Your task to perform on an android device: Search for "razer naga" on newegg.com, select the first entry, add it to the cart, then select checkout. Image 0: 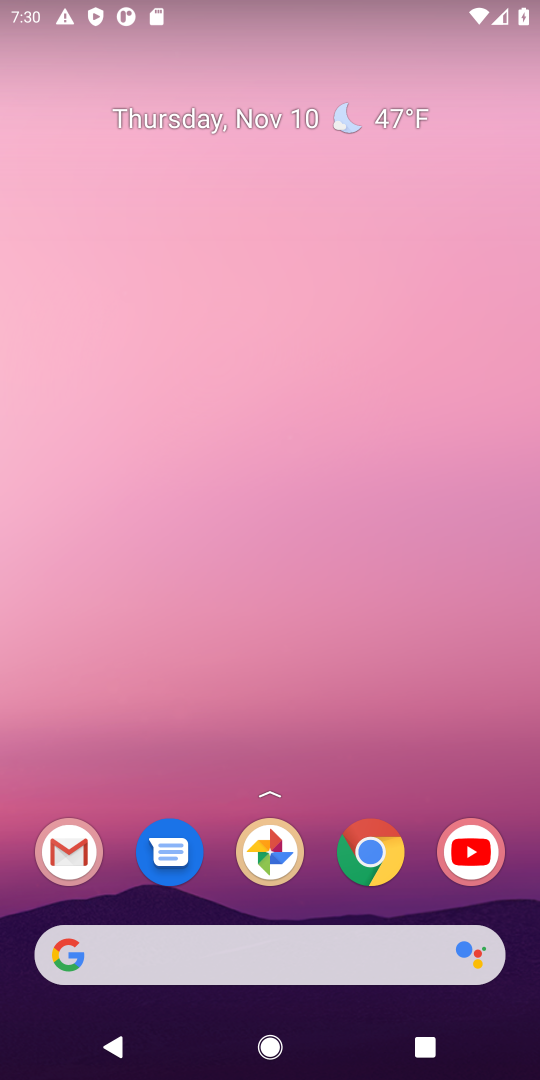
Step 0: click (378, 860)
Your task to perform on an android device: Search for "razer naga" on newegg.com, select the first entry, add it to the cart, then select checkout. Image 1: 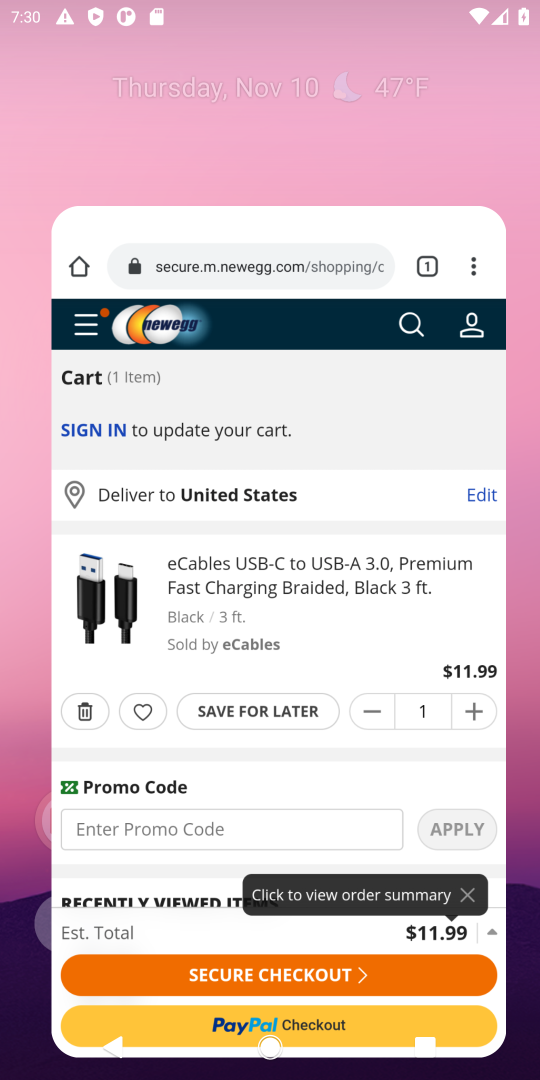
Step 1: click (378, 860)
Your task to perform on an android device: Search for "razer naga" on newegg.com, select the first entry, add it to the cart, then select checkout. Image 2: 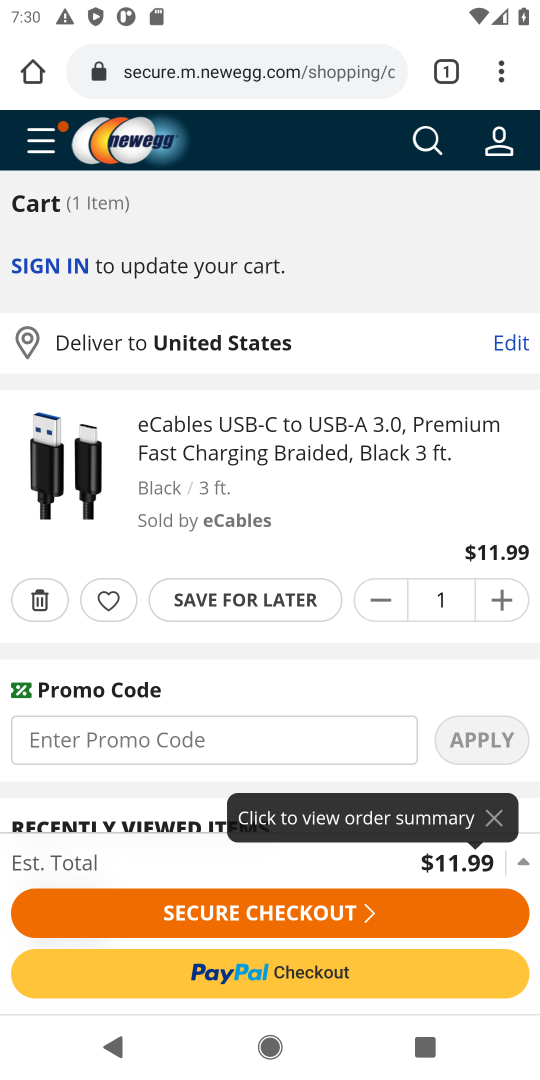
Step 2: click (423, 138)
Your task to perform on an android device: Search for "razer naga" on newegg.com, select the first entry, add it to the cart, then select checkout. Image 3: 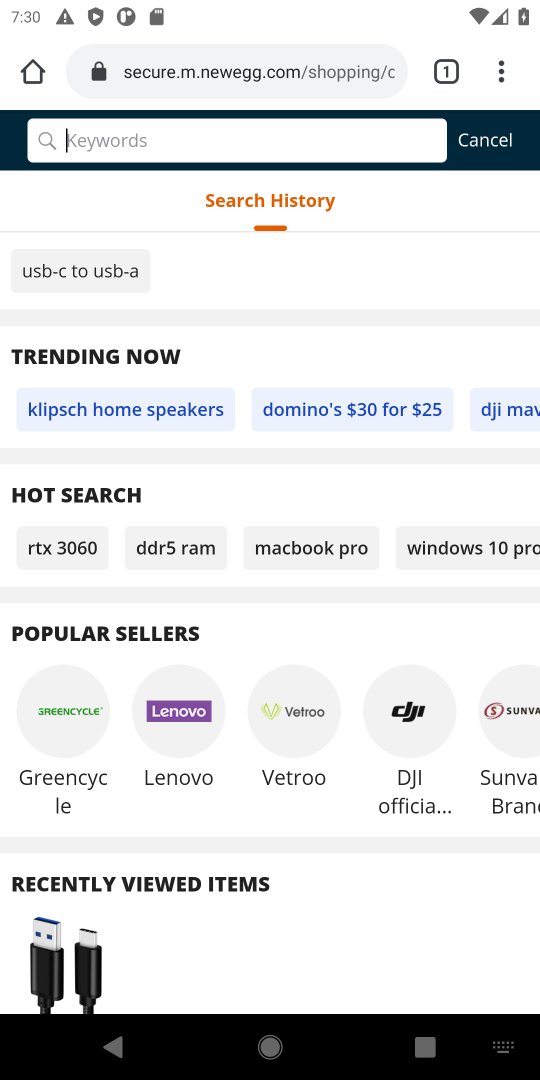
Step 3: click (158, 134)
Your task to perform on an android device: Search for "razer naga" on newegg.com, select the first entry, add it to the cart, then select checkout. Image 4: 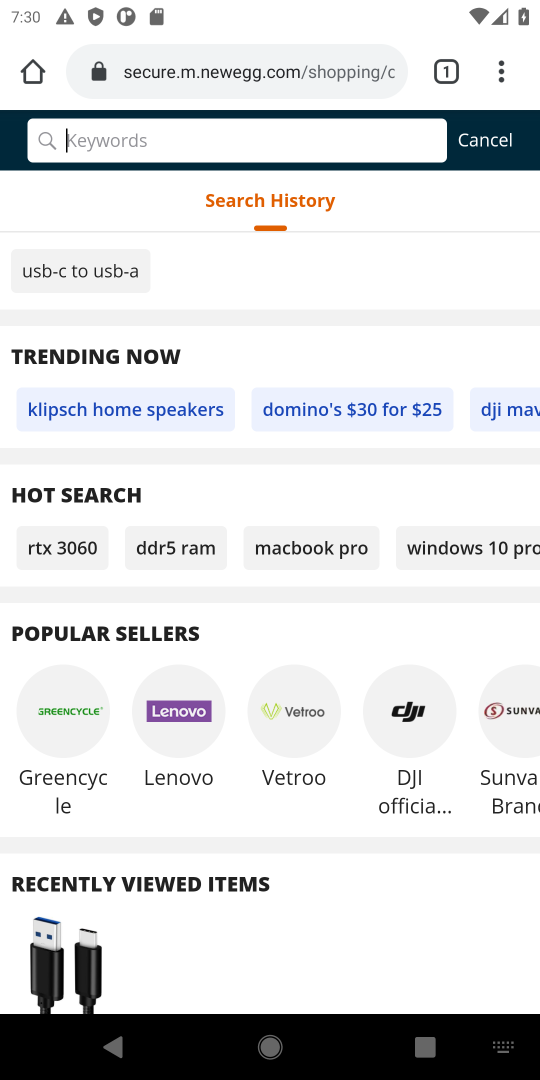
Step 4: type "razer naga"
Your task to perform on an android device: Search for "razer naga" on newegg.com, select the first entry, add it to the cart, then select checkout. Image 5: 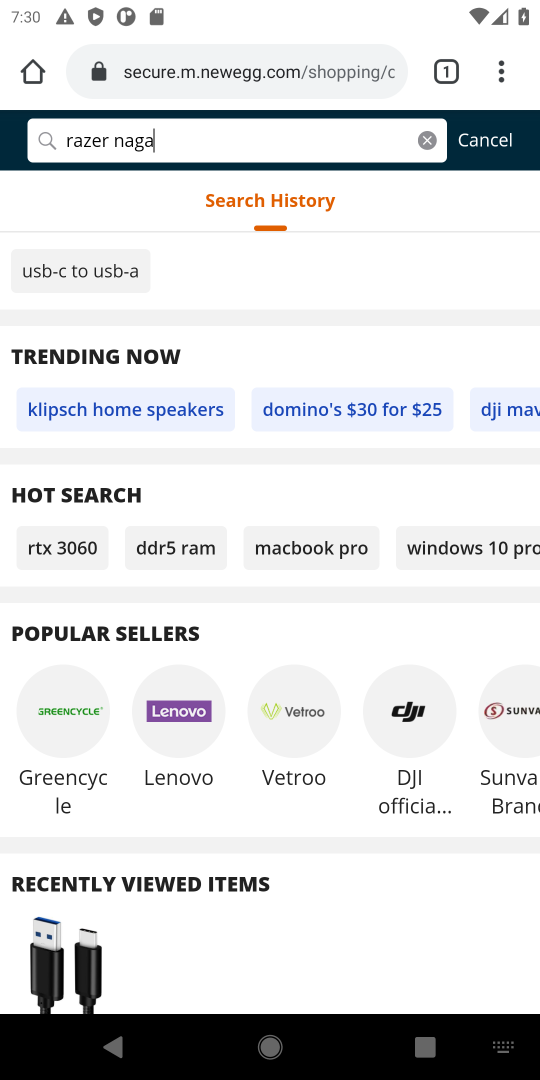
Step 5: press enter
Your task to perform on an android device: Search for "razer naga" on newegg.com, select the first entry, add it to the cart, then select checkout. Image 6: 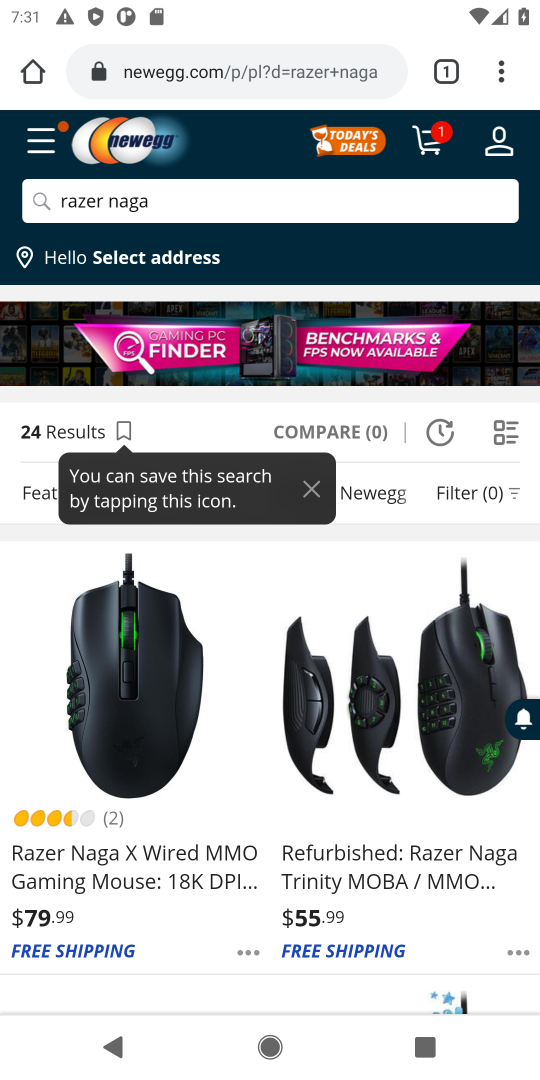
Step 6: click (90, 872)
Your task to perform on an android device: Search for "razer naga" on newegg.com, select the first entry, add it to the cart, then select checkout. Image 7: 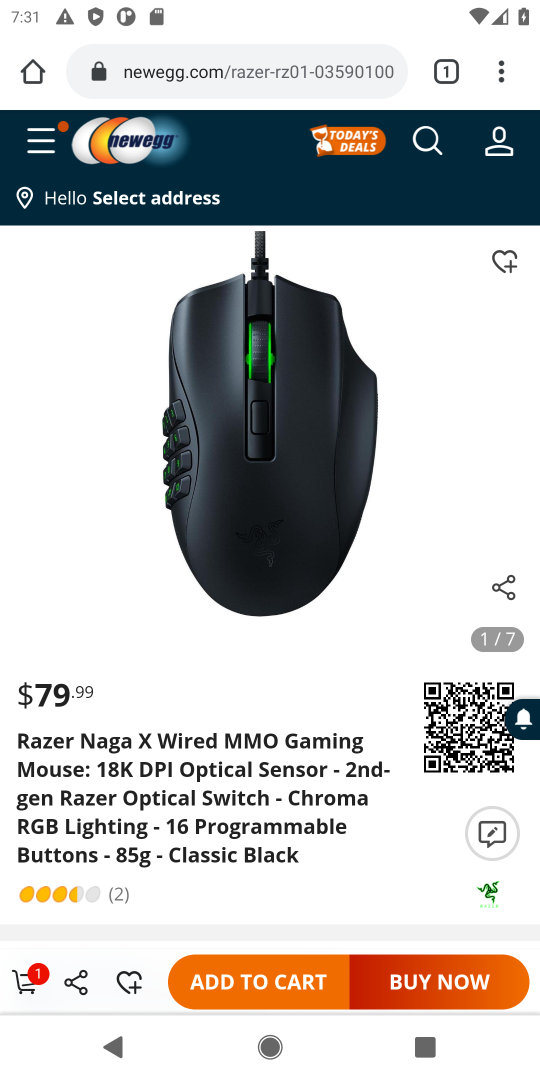
Step 7: click (273, 975)
Your task to perform on an android device: Search for "razer naga" on newegg.com, select the first entry, add it to the cart, then select checkout. Image 8: 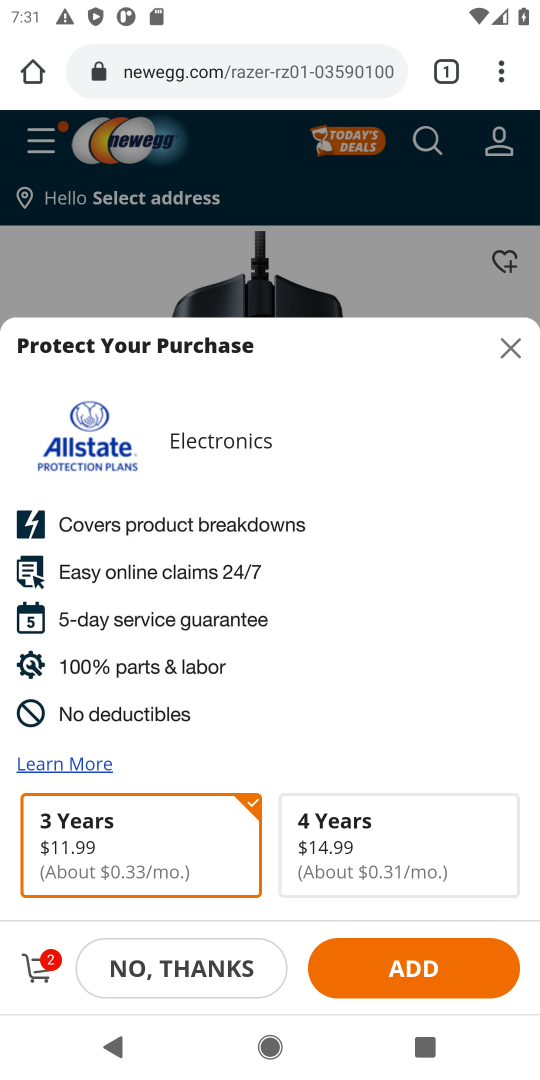
Step 8: click (40, 977)
Your task to perform on an android device: Search for "razer naga" on newegg.com, select the first entry, add it to the cart, then select checkout. Image 9: 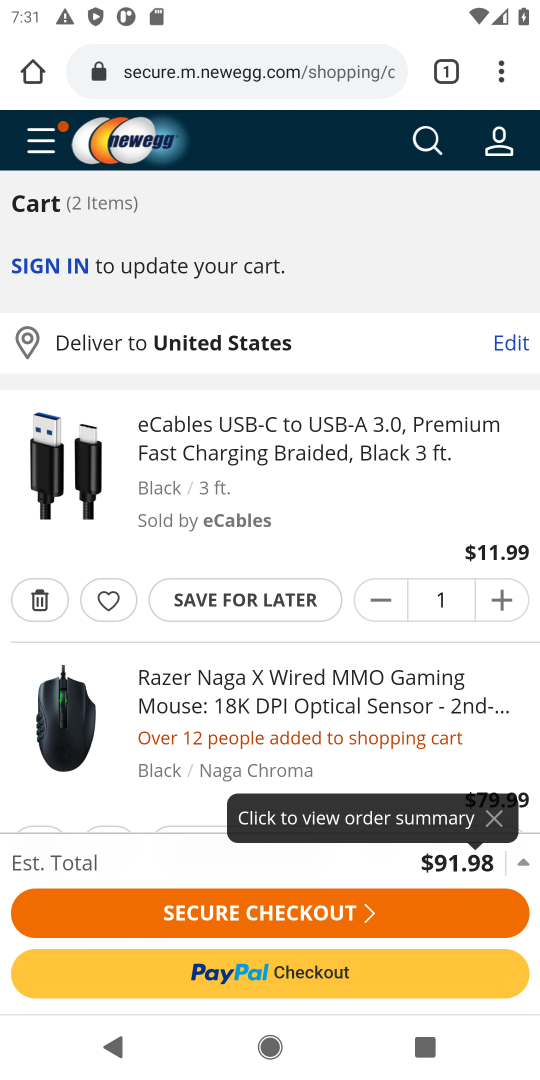
Step 9: drag from (225, 724) to (302, 594)
Your task to perform on an android device: Search for "razer naga" on newegg.com, select the first entry, add it to the cart, then select checkout. Image 10: 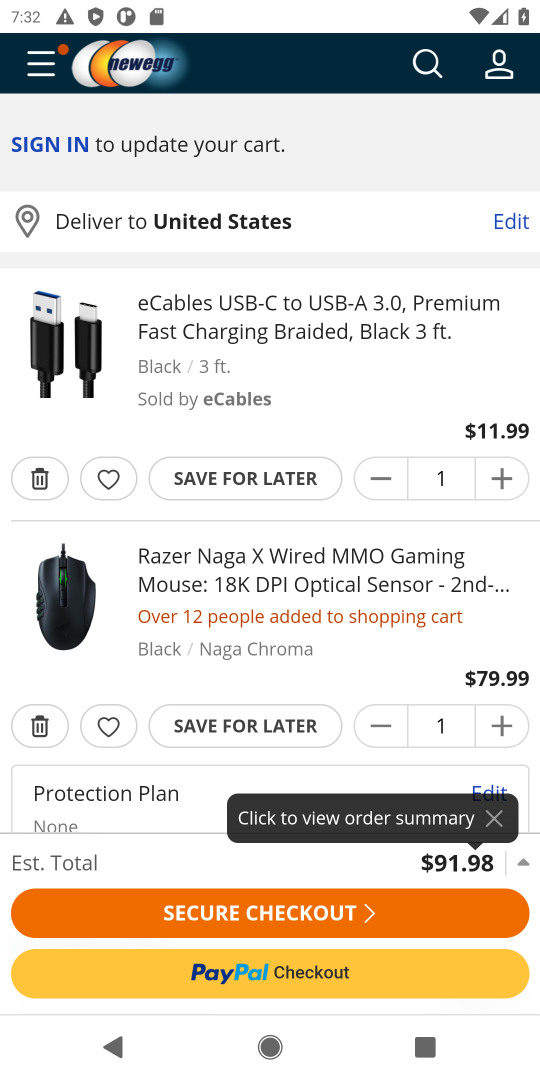
Step 10: click (42, 473)
Your task to perform on an android device: Search for "razer naga" on newegg.com, select the first entry, add it to the cart, then select checkout. Image 11: 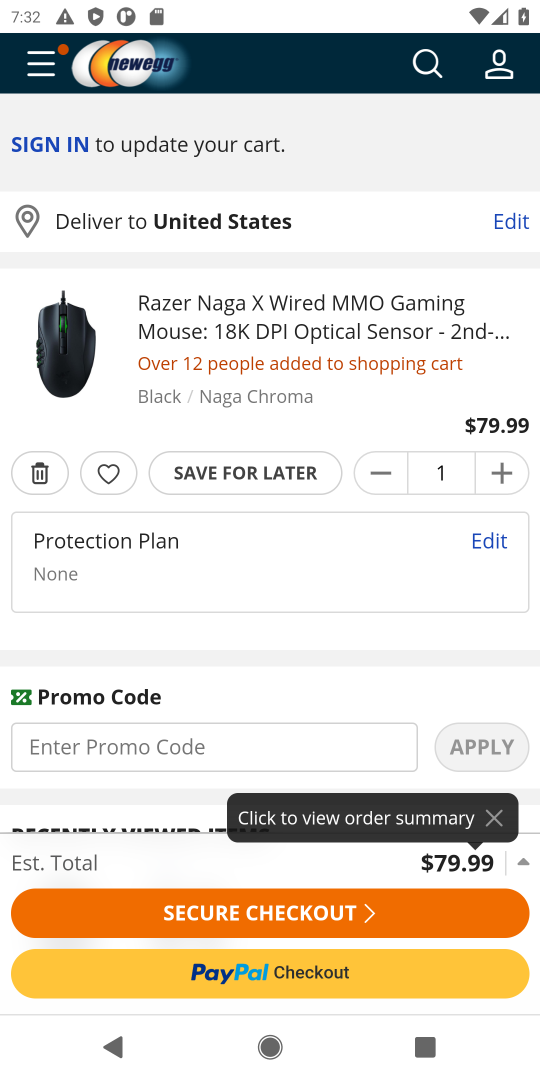
Step 11: click (299, 922)
Your task to perform on an android device: Search for "razer naga" on newegg.com, select the first entry, add it to the cart, then select checkout. Image 12: 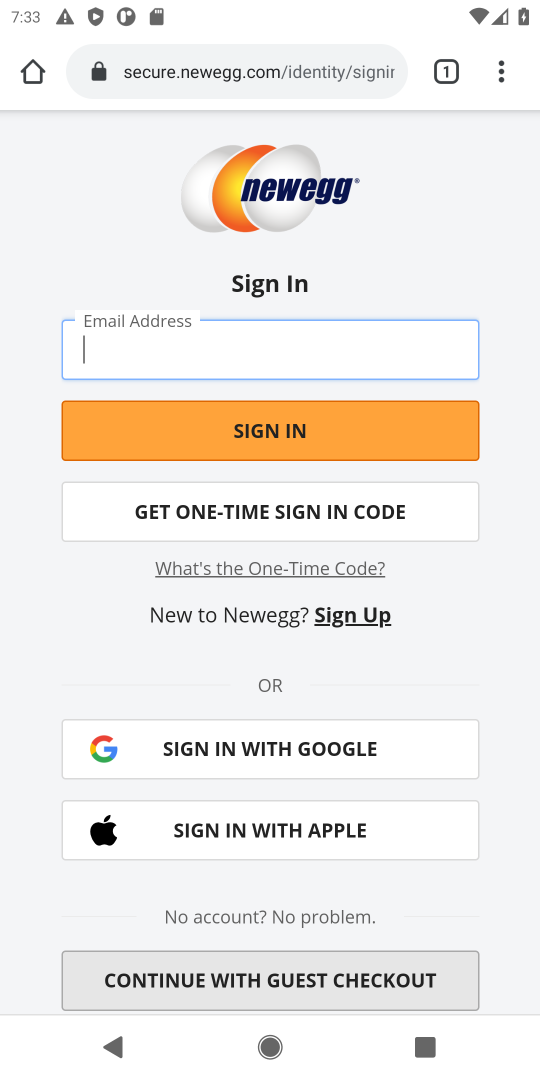
Step 12: task complete